Your task to perform on an android device: change the clock display to digital Image 0: 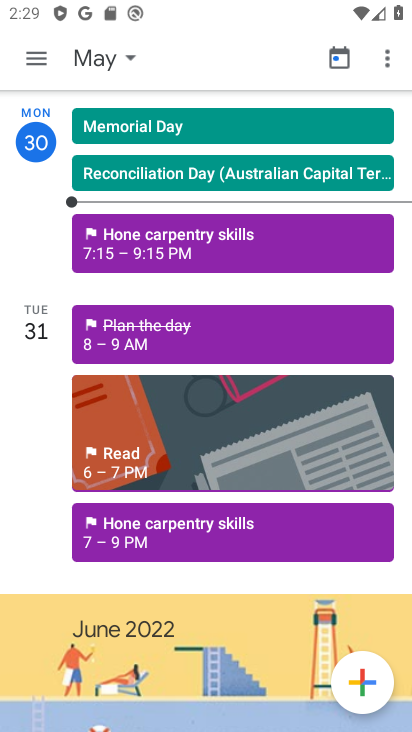
Step 0: press home button
Your task to perform on an android device: change the clock display to digital Image 1: 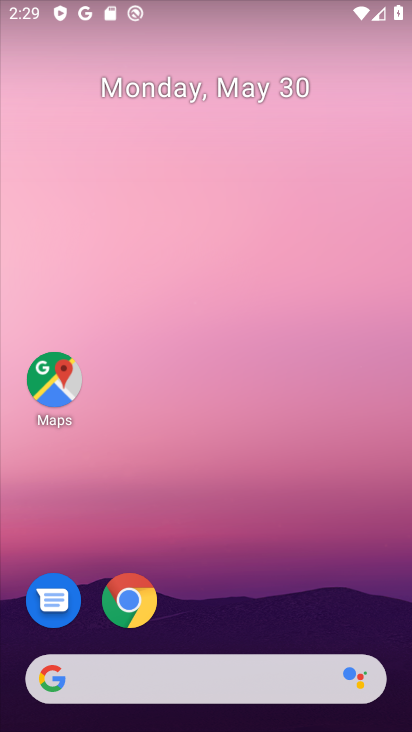
Step 1: drag from (213, 627) to (313, 157)
Your task to perform on an android device: change the clock display to digital Image 2: 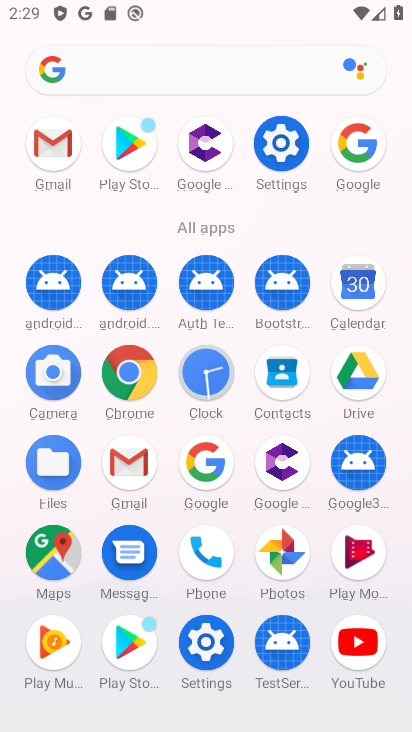
Step 2: click (200, 377)
Your task to perform on an android device: change the clock display to digital Image 3: 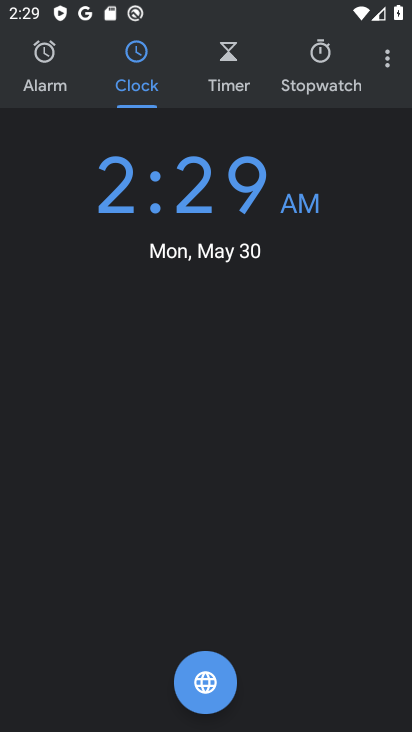
Step 3: click (379, 60)
Your task to perform on an android device: change the clock display to digital Image 4: 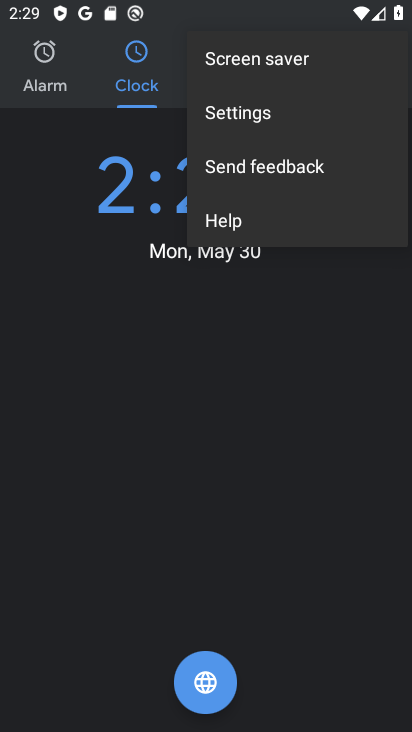
Step 4: click (312, 124)
Your task to perform on an android device: change the clock display to digital Image 5: 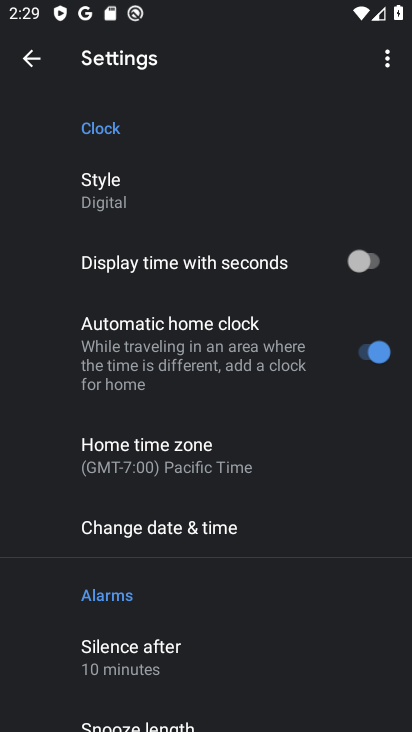
Step 5: task complete